Your task to perform on an android device: Open Google Chrome and open the bookmarks view Image 0: 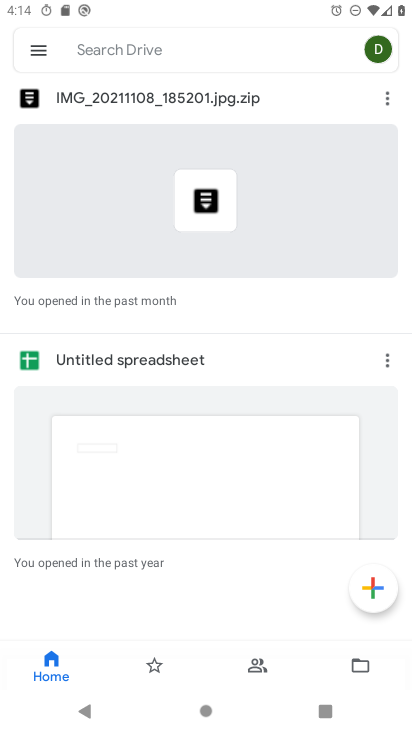
Step 0: press home button
Your task to perform on an android device: Open Google Chrome and open the bookmarks view Image 1: 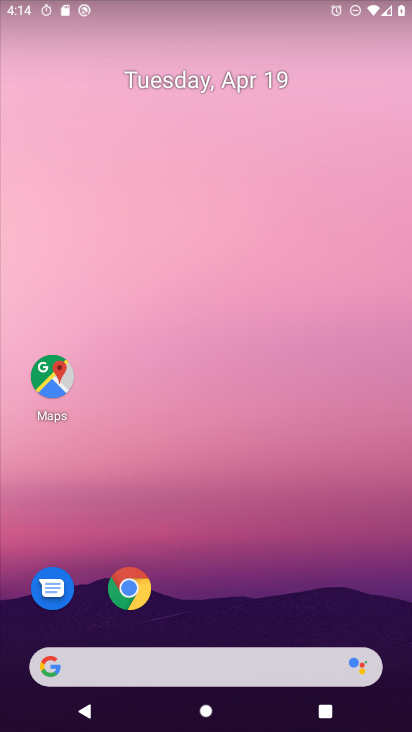
Step 1: click (136, 593)
Your task to perform on an android device: Open Google Chrome and open the bookmarks view Image 2: 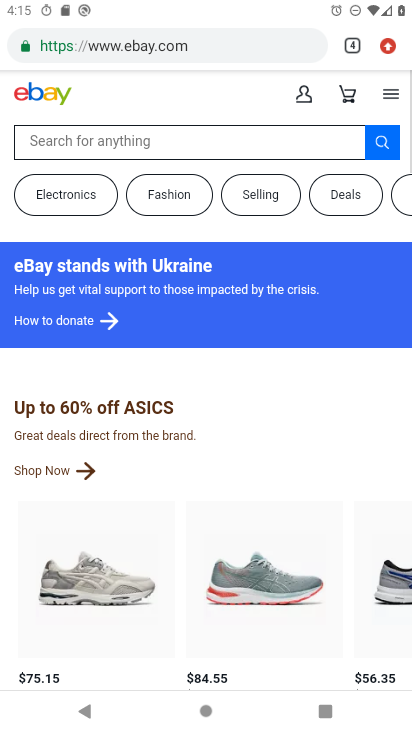
Step 2: click (388, 42)
Your task to perform on an android device: Open Google Chrome and open the bookmarks view Image 3: 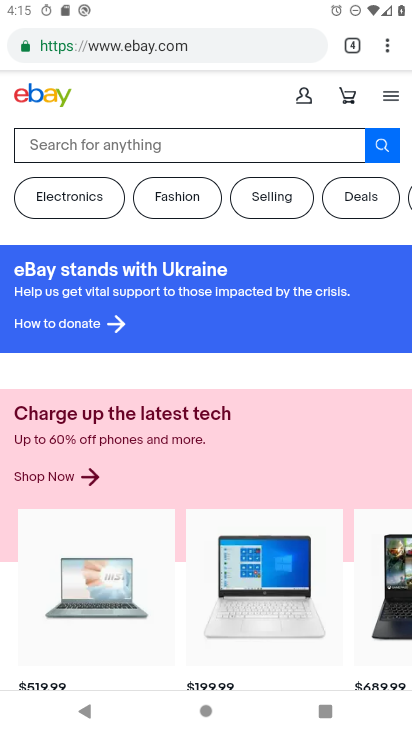
Step 3: click (388, 42)
Your task to perform on an android device: Open Google Chrome and open the bookmarks view Image 4: 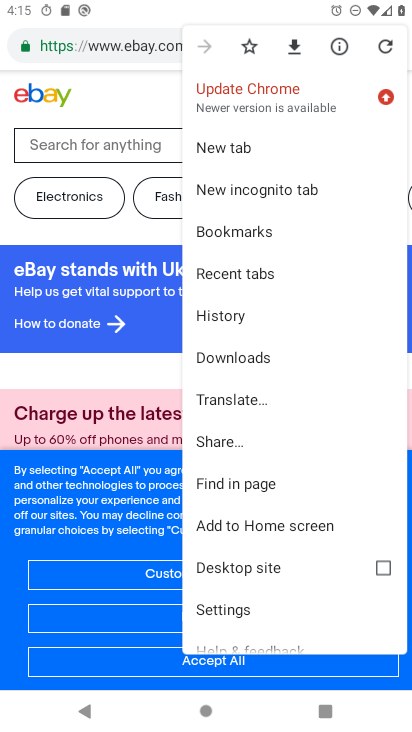
Step 4: click (252, 226)
Your task to perform on an android device: Open Google Chrome and open the bookmarks view Image 5: 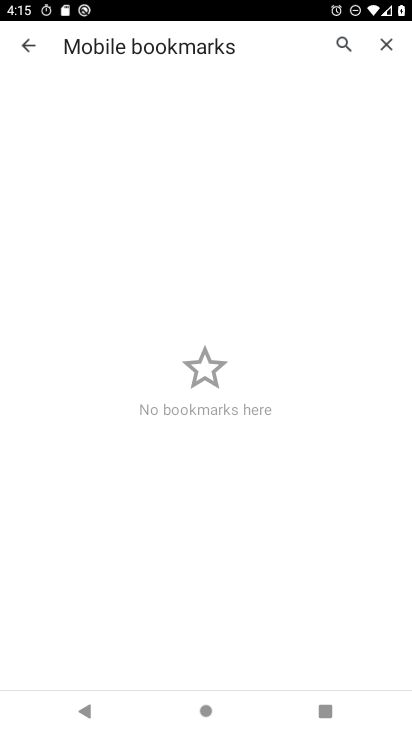
Step 5: task complete